Your task to perform on an android device: turn on priority inbox in the gmail app Image 0: 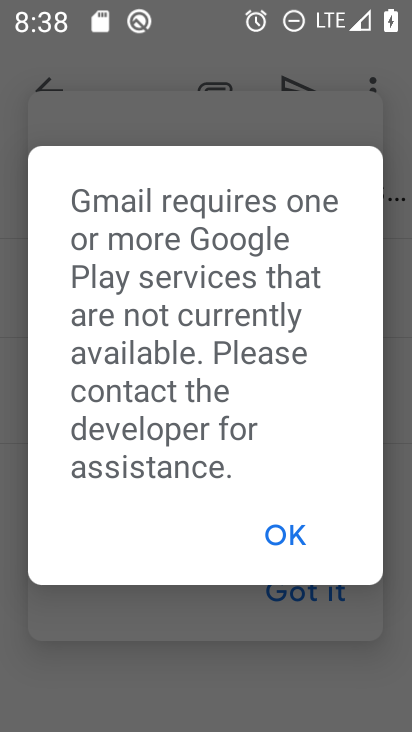
Step 0: press home button
Your task to perform on an android device: turn on priority inbox in the gmail app Image 1: 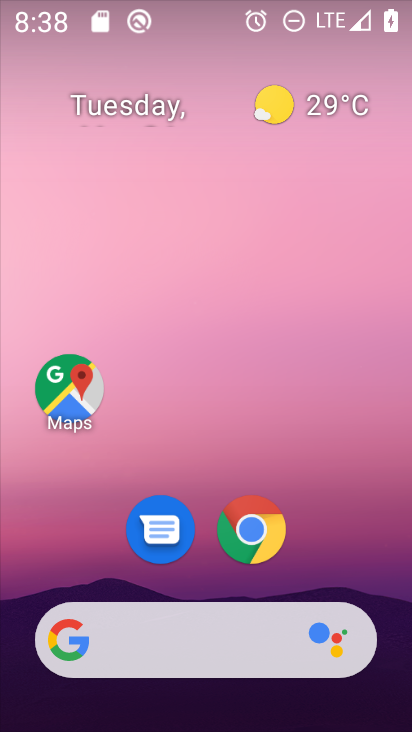
Step 1: drag from (390, 661) to (270, 107)
Your task to perform on an android device: turn on priority inbox in the gmail app Image 2: 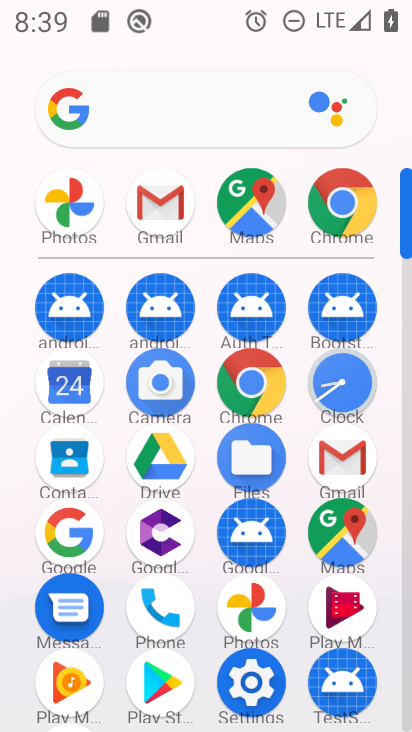
Step 2: click (322, 469)
Your task to perform on an android device: turn on priority inbox in the gmail app Image 3: 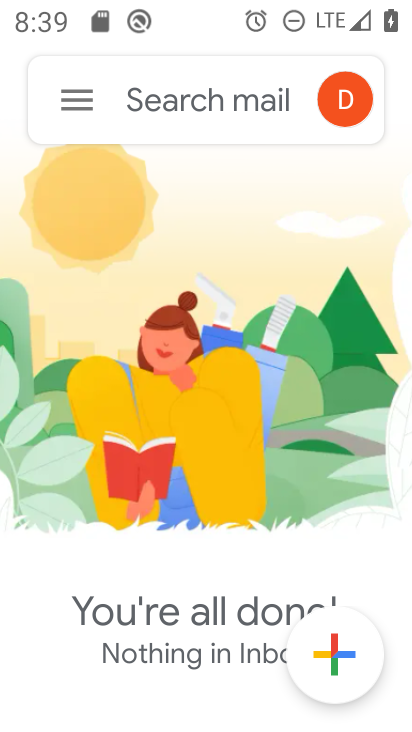
Step 3: click (57, 104)
Your task to perform on an android device: turn on priority inbox in the gmail app Image 4: 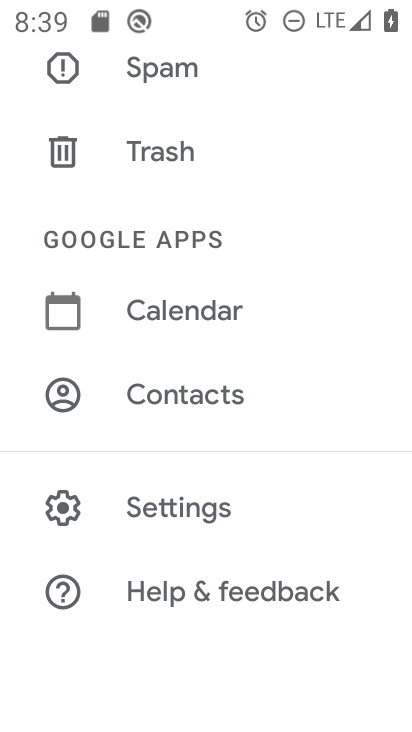
Step 4: click (216, 510)
Your task to perform on an android device: turn on priority inbox in the gmail app Image 5: 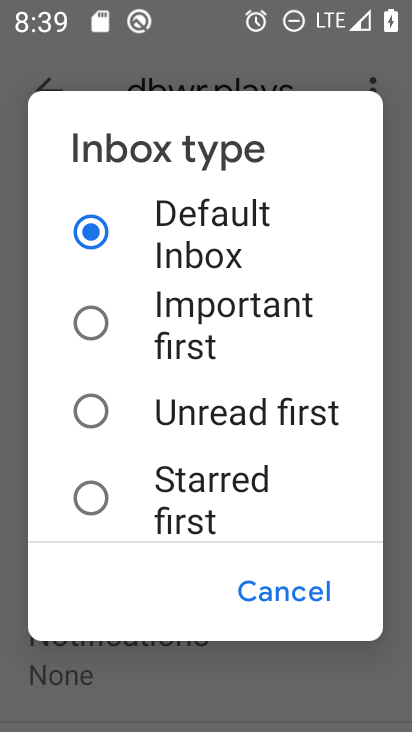
Step 5: drag from (122, 499) to (106, 150)
Your task to perform on an android device: turn on priority inbox in the gmail app Image 6: 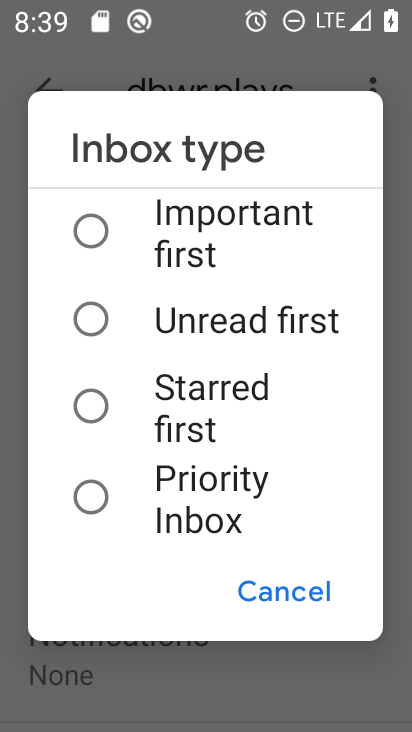
Step 6: click (85, 498)
Your task to perform on an android device: turn on priority inbox in the gmail app Image 7: 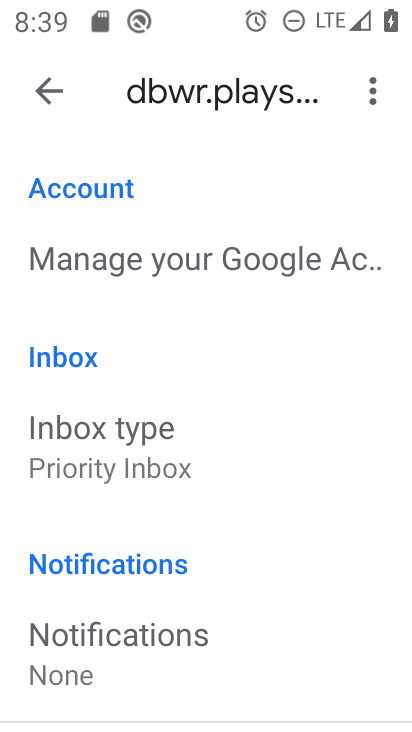
Step 7: task complete